Your task to perform on an android device: Open maps Image 0: 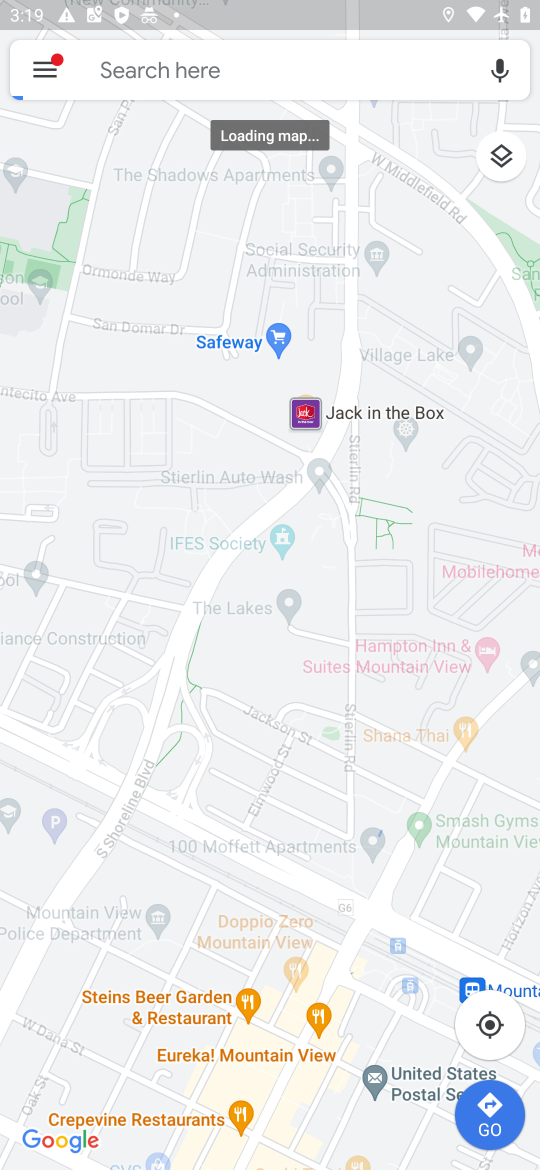
Step 0: task complete